Your task to perform on an android device: Open Chrome and go to settings Image 0: 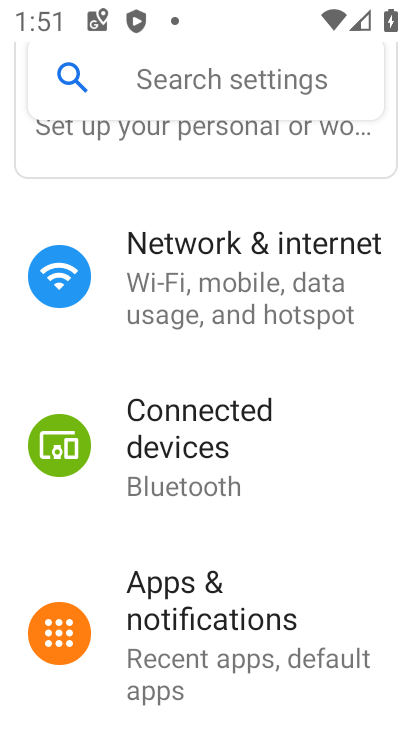
Step 0: press home button
Your task to perform on an android device: Open Chrome and go to settings Image 1: 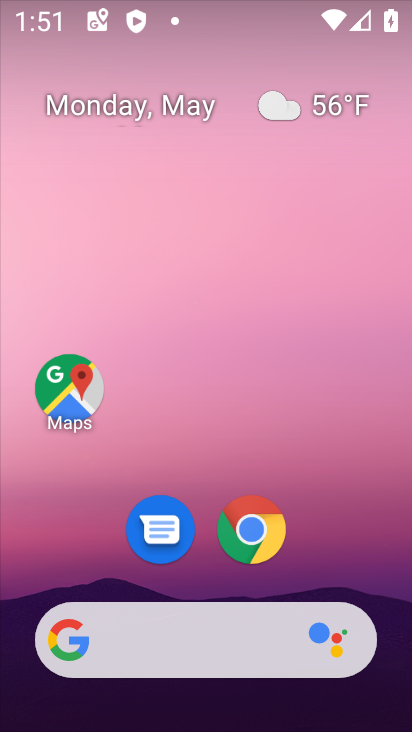
Step 1: click (257, 527)
Your task to perform on an android device: Open Chrome and go to settings Image 2: 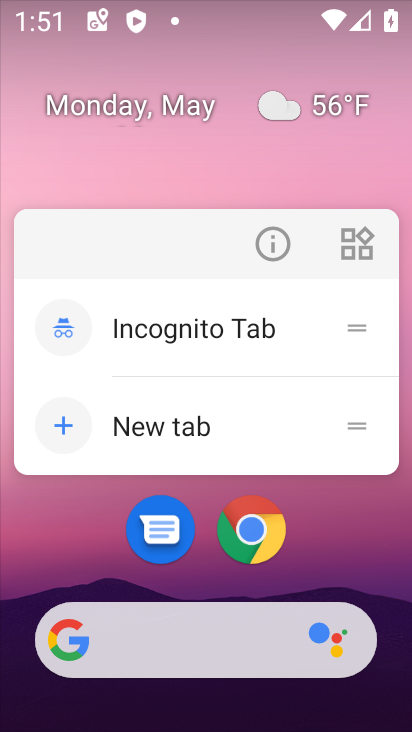
Step 2: click (256, 524)
Your task to perform on an android device: Open Chrome and go to settings Image 3: 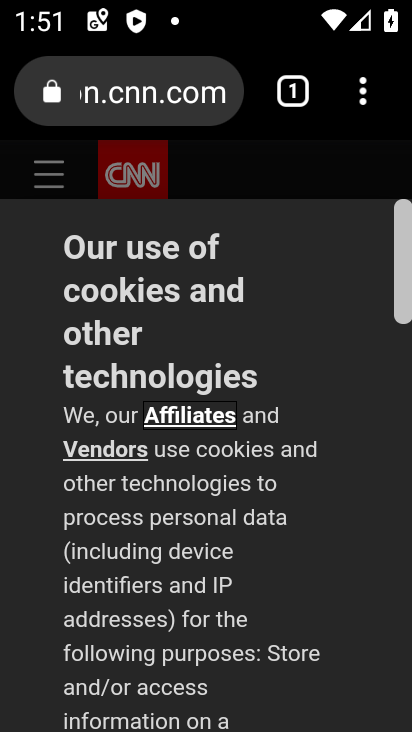
Step 3: click (370, 111)
Your task to perform on an android device: Open Chrome and go to settings Image 4: 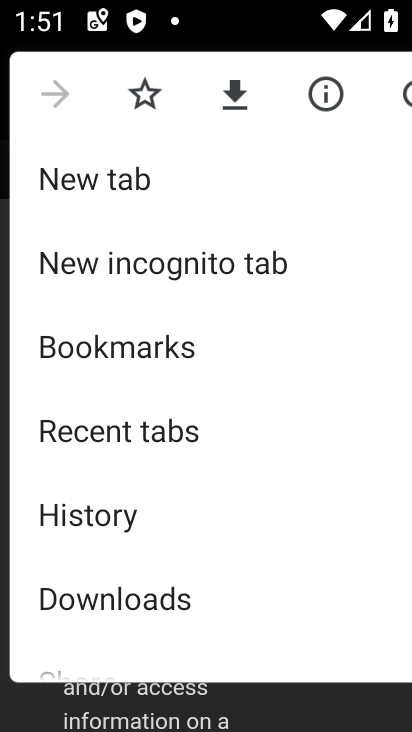
Step 4: drag from (132, 585) to (181, 311)
Your task to perform on an android device: Open Chrome and go to settings Image 5: 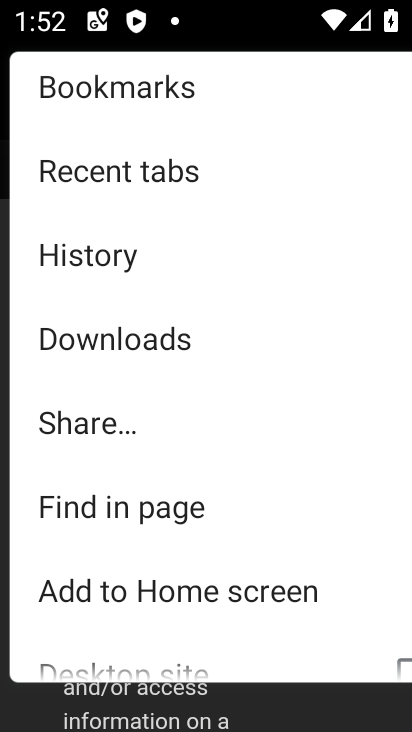
Step 5: drag from (184, 561) to (241, 290)
Your task to perform on an android device: Open Chrome and go to settings Image 6: 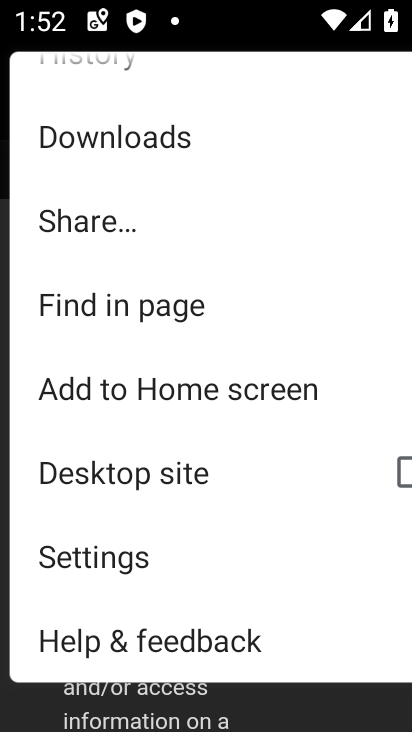
Step 6: click (150, 559)
Your task to perform on an android device: Open Chrome and go to settings Image 7: 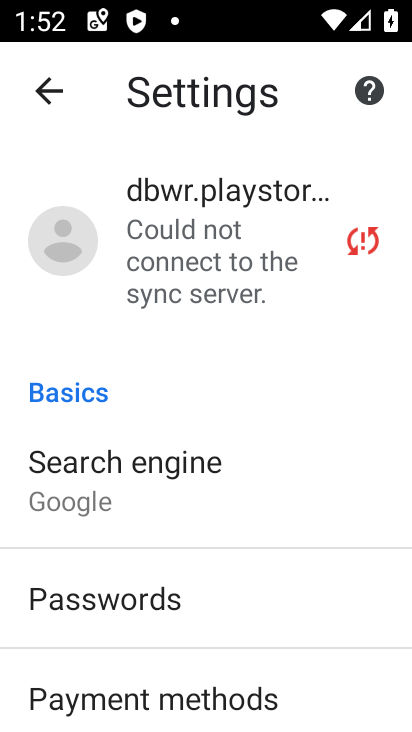
Step 7: task complete